Your task to perform on an android device: toggle pop-ups in chrome Image 0: 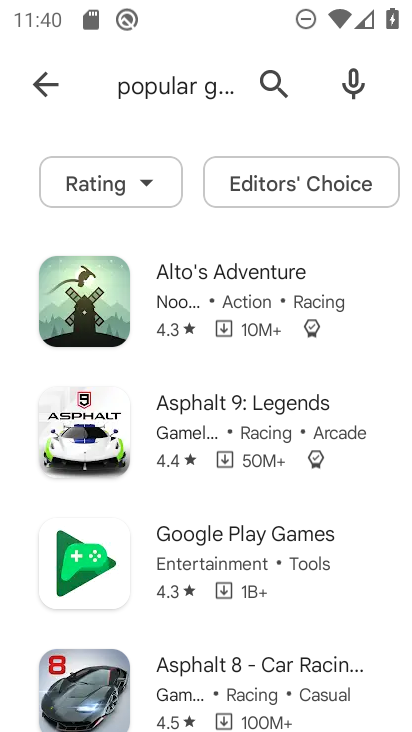
Step 0: press home button
Your task to perform on an android device: toggle pop-ups in chrome Image 1: 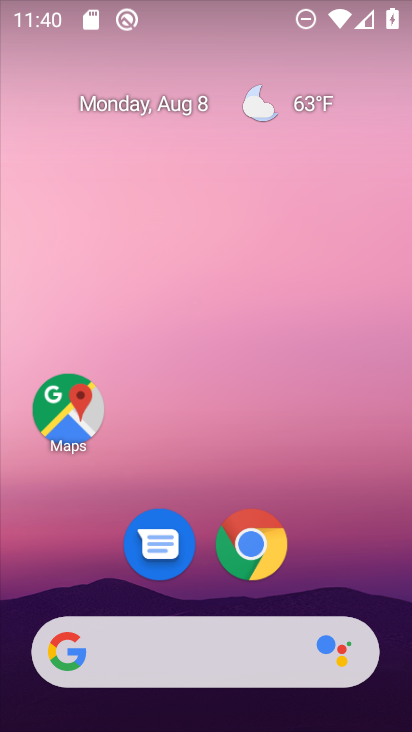
Step 1: click (250, 546)
Your task to perform on an android device: toggle pop-ups in chrome Image 2: 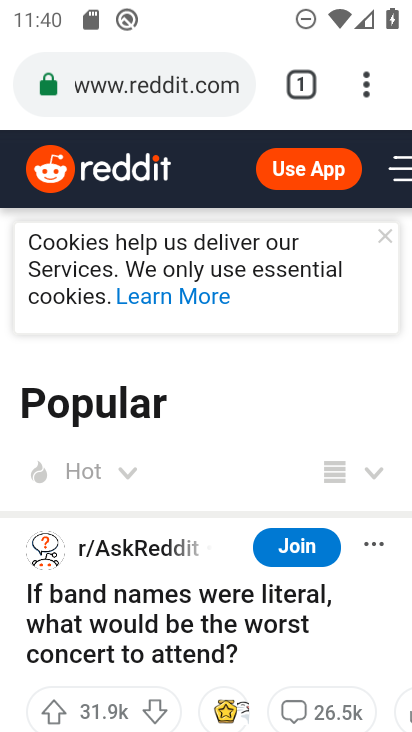
Step 2: click (365, 79)
Your task to perform on an android device: toggle pop-ups in chrome Image 3: 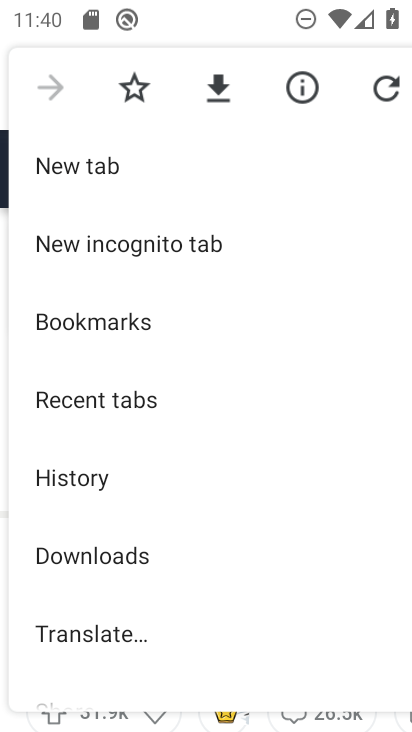
Step 3: drag from (83, 511) to (237, 346)
Your task to perform on an android device: toggle pop-ups in chrome Image 4: 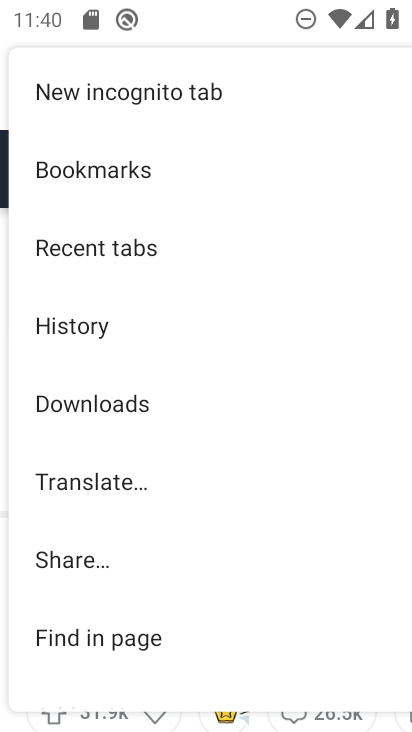
Step 4: drag from (139, 540) to (244, 414)
Your task to perform on an android device: toggle pop-ups in chrome Image 5: 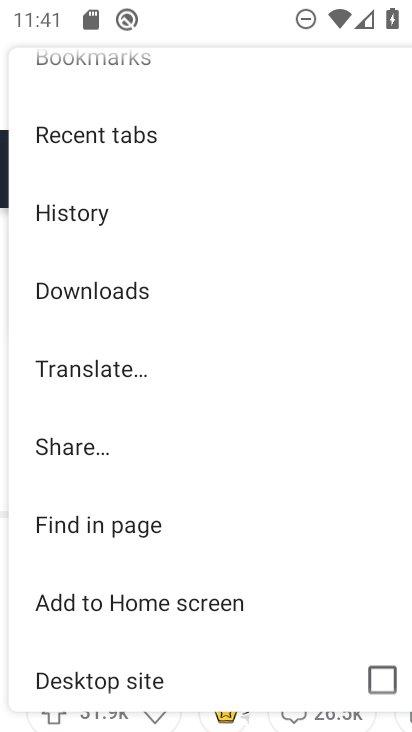
Step 5: drag from (126, 579) to (225, 456)
Your task to perform on an android device: toggle pop-ups in chrome Image 6: 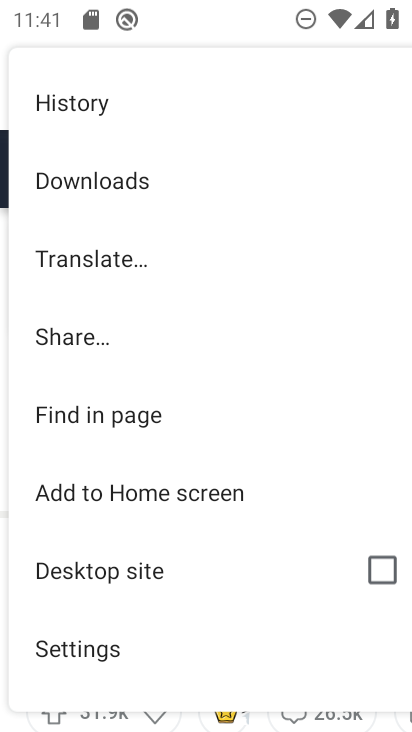
Step 6: drag from (118, 611) to (246, 468)
Your task to perform on an android device: toggle pop-ups in chrome Image 7: 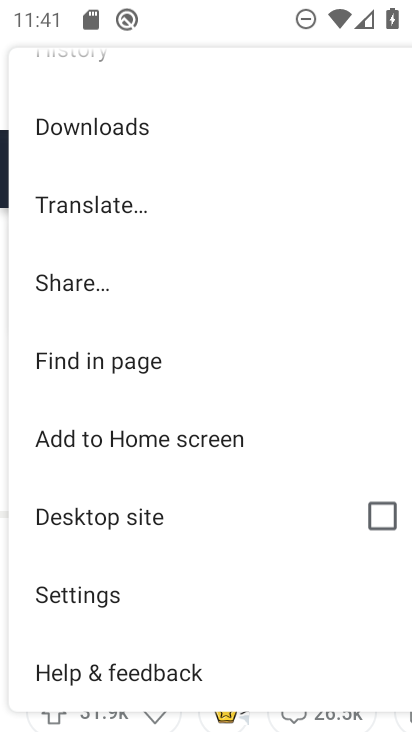
Step 7: click (117, 593)
Your task to perform on an android device: toggle pop-ups in chrome Image 8: 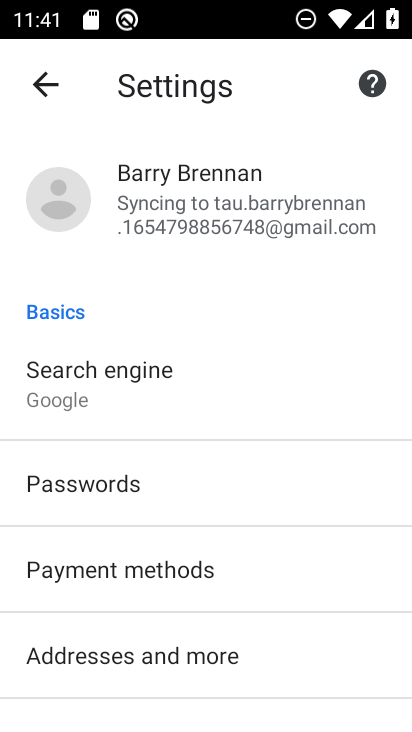
Step 8: drag from (147, 596) to (274, 425)
Your task to perform on an android device: toggle pop-ups in chrome Image 9: 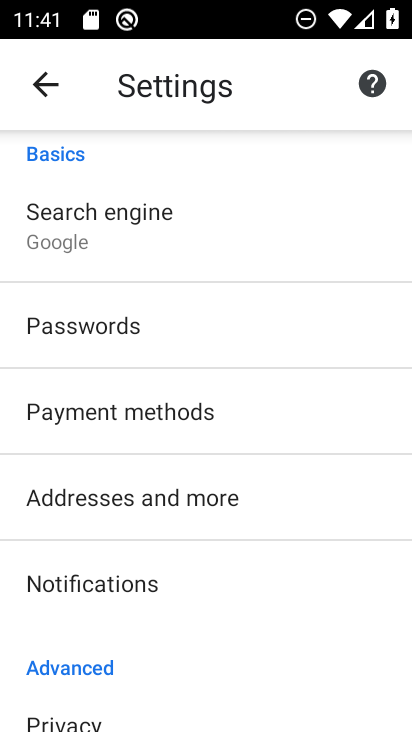
Step 9: drag from (165, 616) to (289, 458)
Your task to perform on an android device: toggle pop-ups in chrome Image 10: 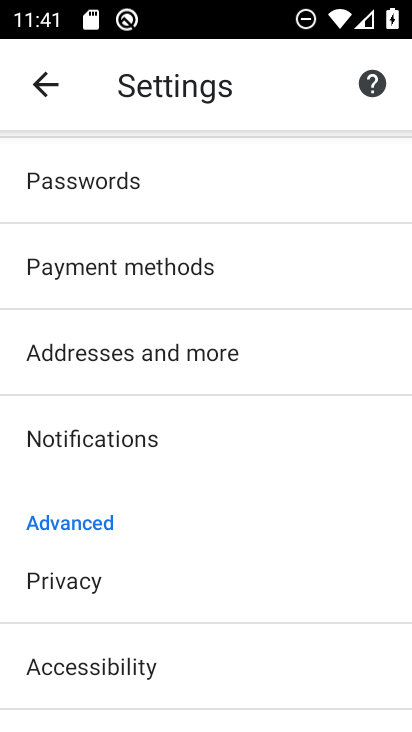
Step 10: drag from (204, 596) to (295, 423)
Your task to perform on an android device: toggle pop-ups in chrome Image 11: 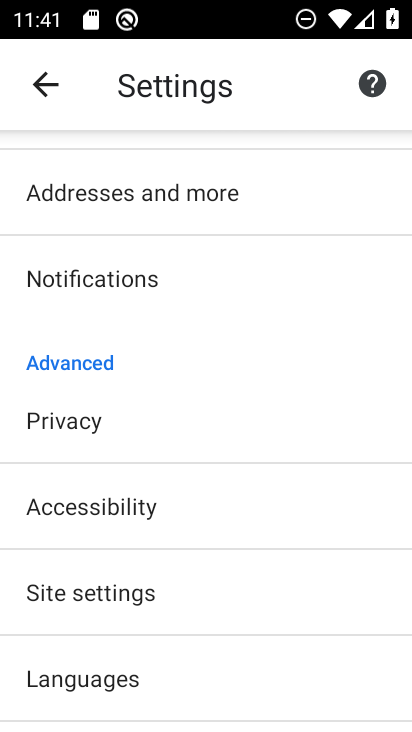
Step 11: drag from (172, 609) to (278, 470)
Your task to perform on an android device: toggle pop-ups in chrome Image 12: 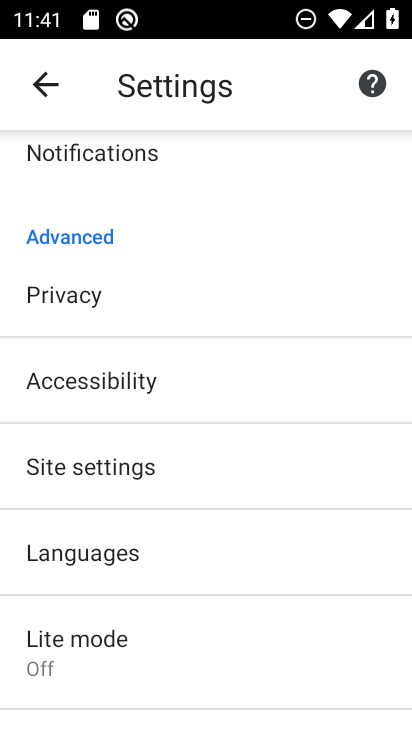
Step 12: click (117, 459)
Your task to perform on an android device: toggle pop-ups in chrome Image 13: 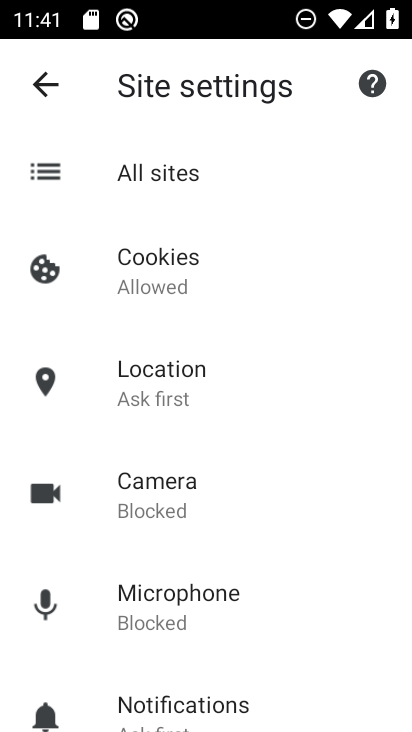
Step 13: drag from (204, 479) to (298, 361)
Your task to perform on an android device: toggle pop-ups in chrome Image 14: 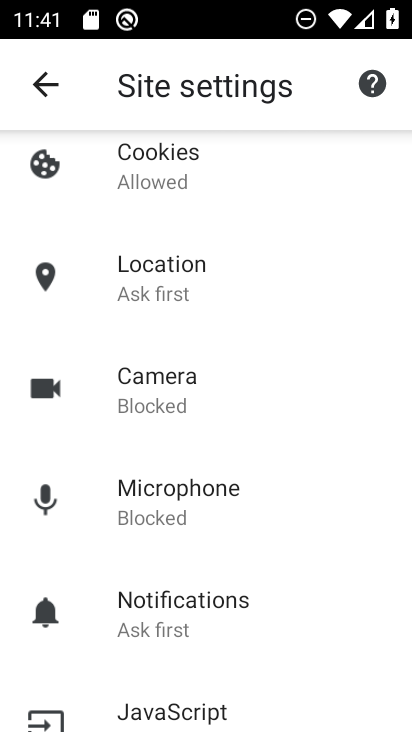
Step 14: drag from (202, 555) to (302, 427)
Your task to perform on an android device: toggle pop-ups in chrome Image 15: 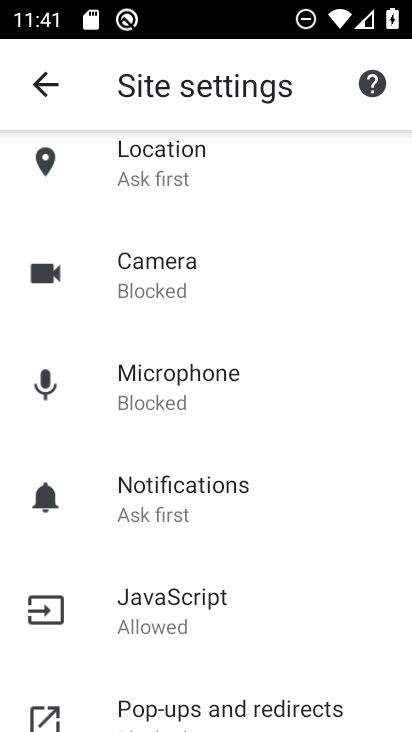
Step 15: drag from (205, 542) to (297, 440)
Your task to perform on an android device: toggle pop-ups in chrome Image 16: 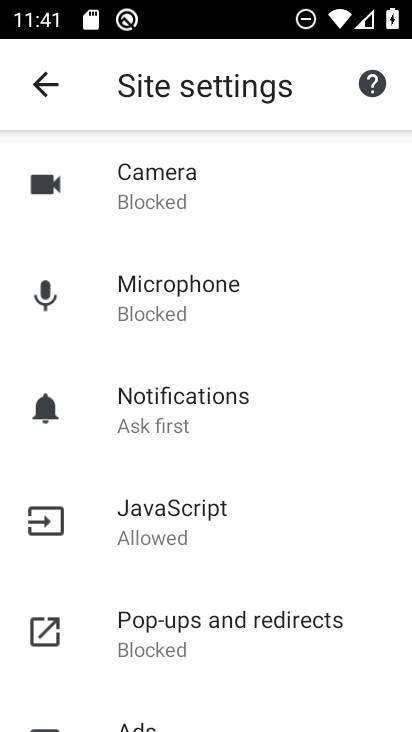
Step 16: click (164, 625)
Your task to perform on an android device: toggle pop-ups in chrome Image 17: 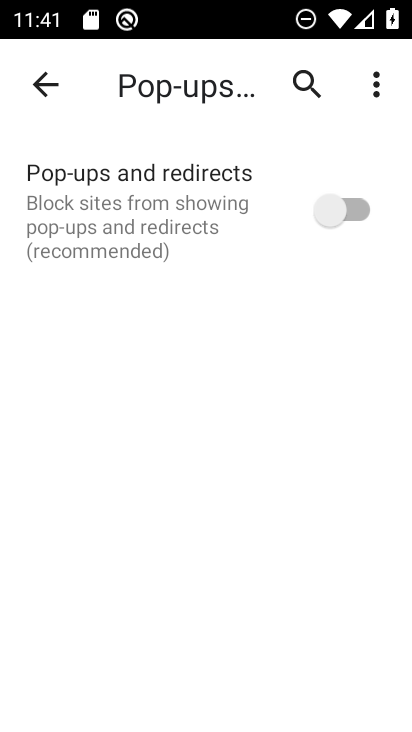
Step 17: click (366, 216)
Your task to perform on an android device: toggle pop-ups in chrome Image 18: 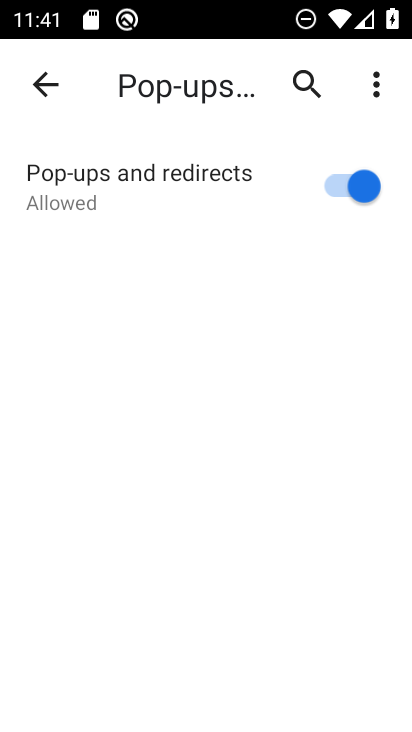
Step 18: task complete